Your task to perform on an android device: make emails show in primary in the gmail app Image 0: 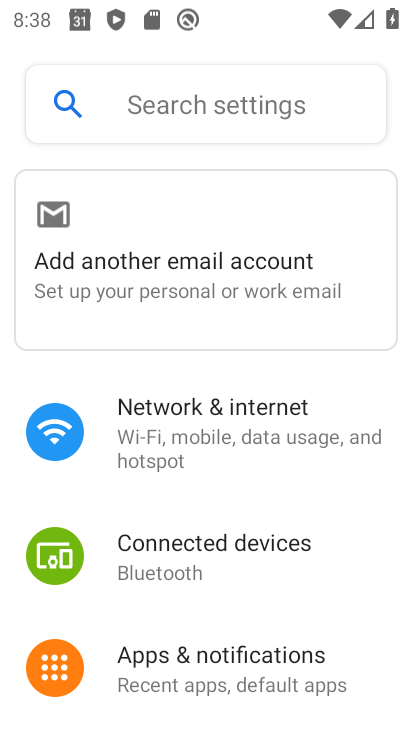
Step 0: press home button
Your task to perform on an android device: make emails show in primary in the gmail app Image 1: 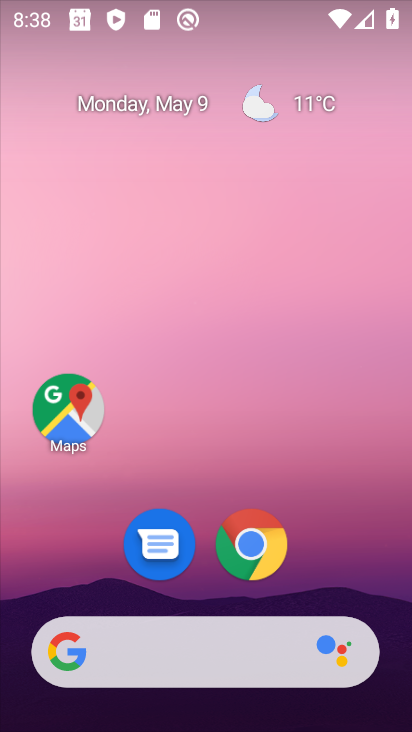
Step 1: drag from (385, 622) to (395, 89)
Your task to perform on an android device: make emails show in primary in the gmail app Image 2: 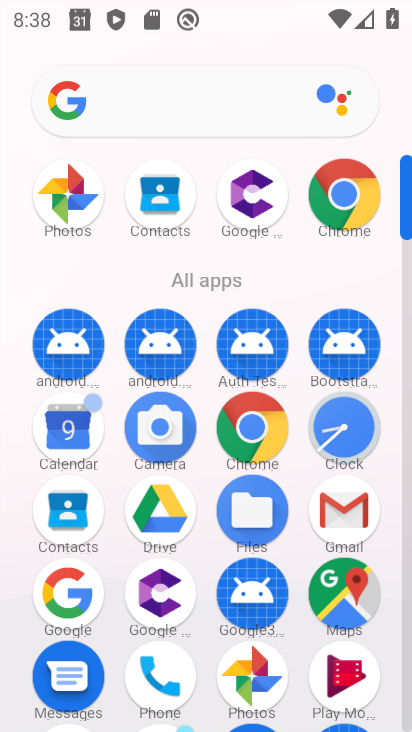
Step 2: click (328, 516)
Your task to perform on an android device: make emails show in primary in the gmail app Image 3: 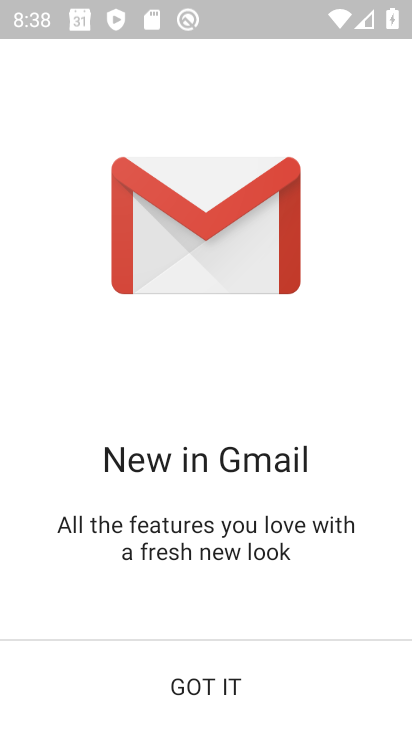
Step 3: click (199, 667)
Your task to perform on an android device: make emails show in primary in the gmail app Image 4: 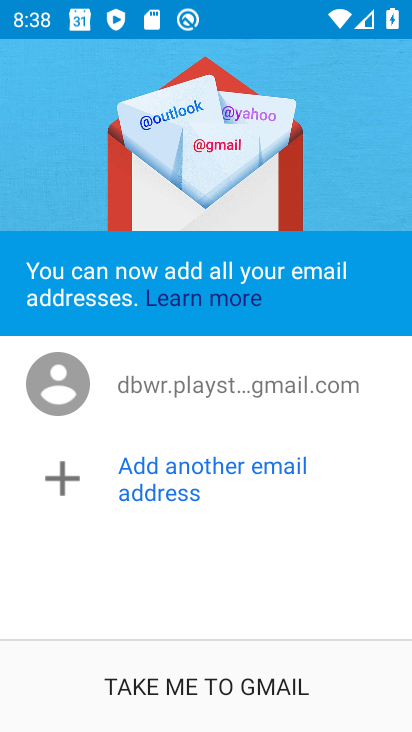
Step 4: click (237, 682)
Your task to perform on an android device: make emails show in primary in the gmail app Image 5: 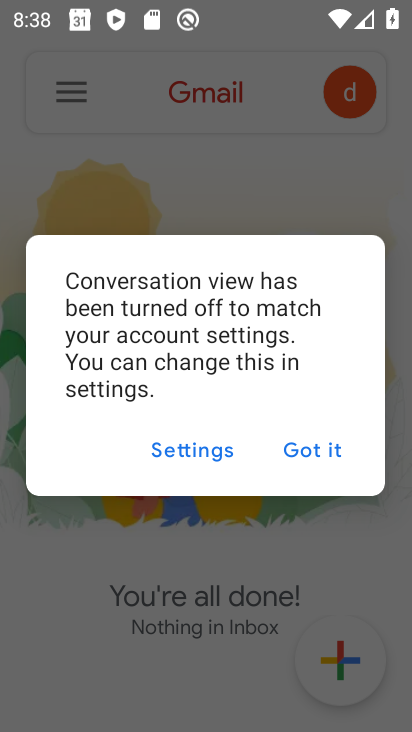
Step 5: click (317, 444)
Your task to perform on an android device: make emails show in primary in the gmail app Image 6: 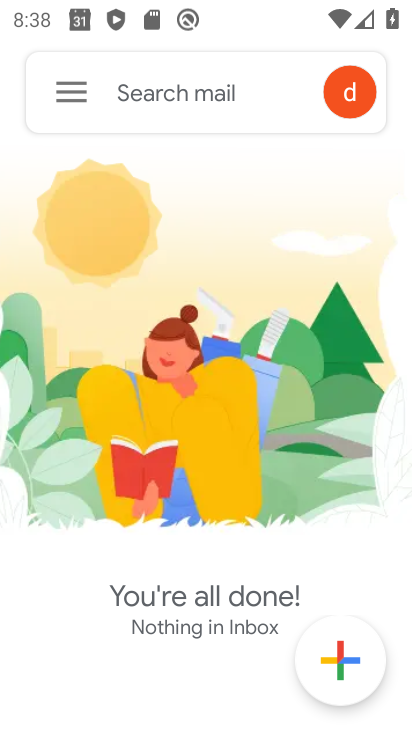
Step 6: click (62, 92)
Your task to perform on an android device: make emails show in primary in the gmail app Image 7: 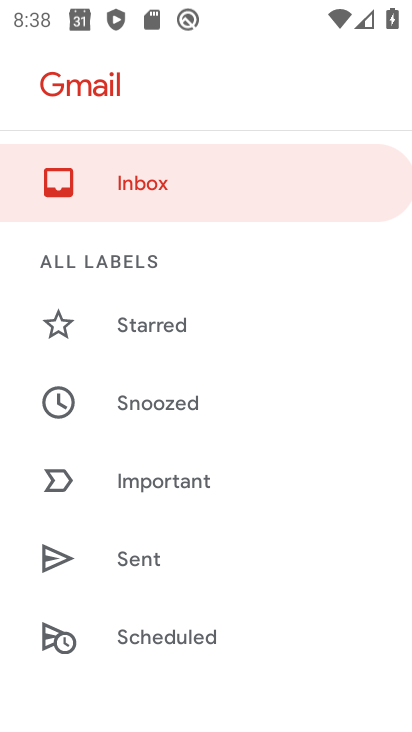
Step 7: drag from (307, 619) to (297, 391)
Your task to perform on an android device: make emails show in primary in the gmail app Image 8: 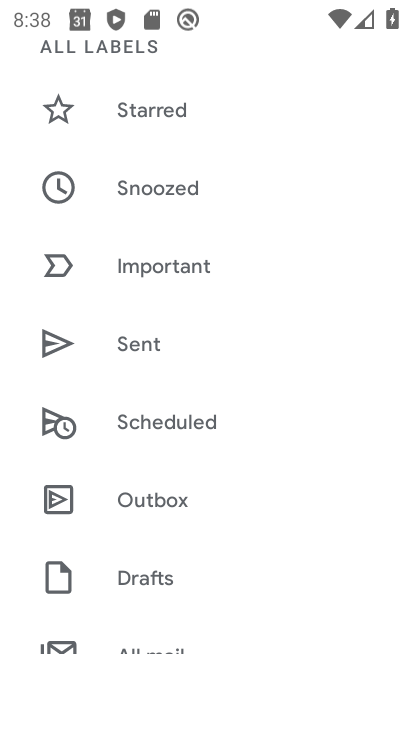
Step 8: drag from (301, 618) to (290, 391)
Your task to perform on an android device: make emails show in primary in the gmail app Image 9: 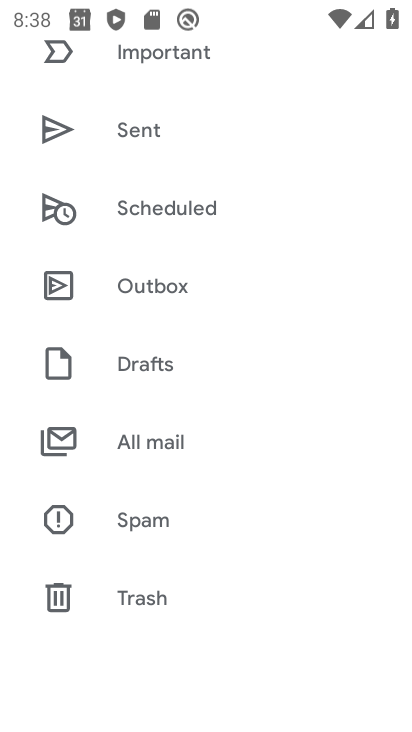
Step 9: drag from (288, 517) to (291, 351)
Your task to perform on an android device: make emails show in primary in the gmail app Image 10: 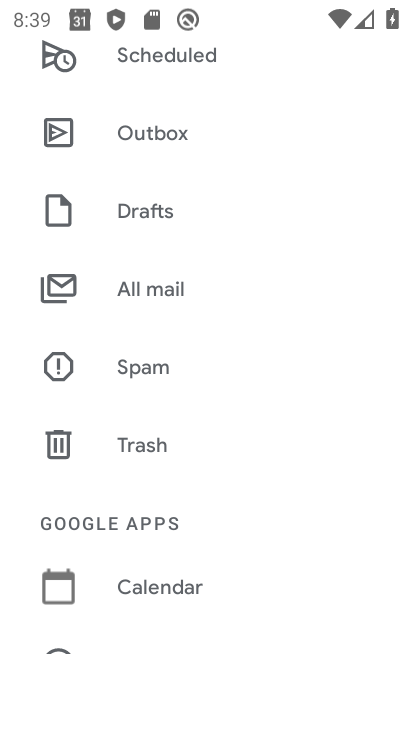
Step 10: drag from (274, 588) to (311, 218)
Your task to perform on an android device: make emails show in primary in the gmail app Image 11: 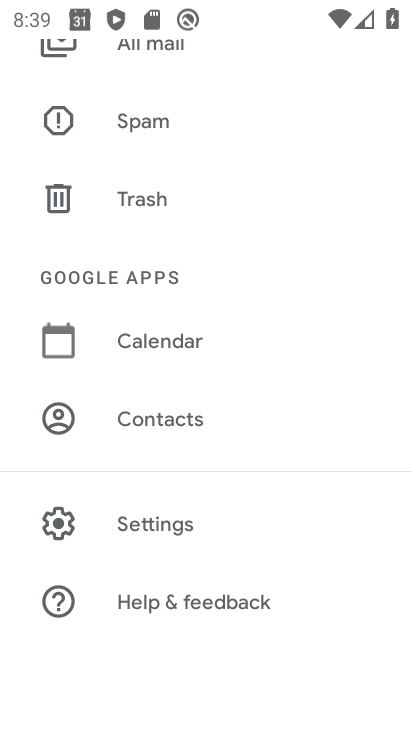
Step 11: click (153, 513)
Your task to perform on an android device: make emails show in primary in the gmail app Image 12: 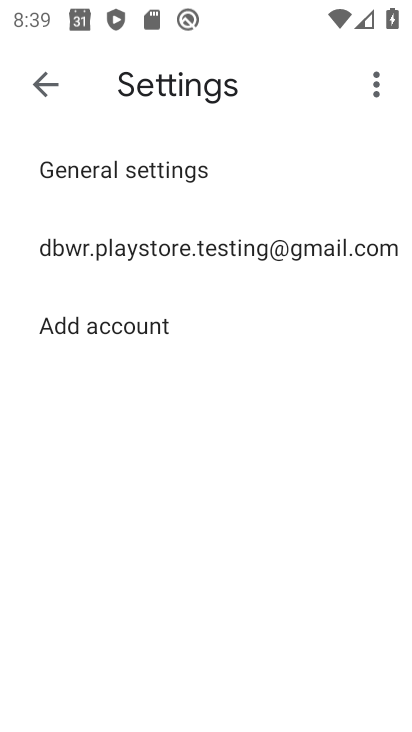
Step 12: click (109, 245)
Your task to perform on an android device: make emails show in primary in the gmail app Image 13: 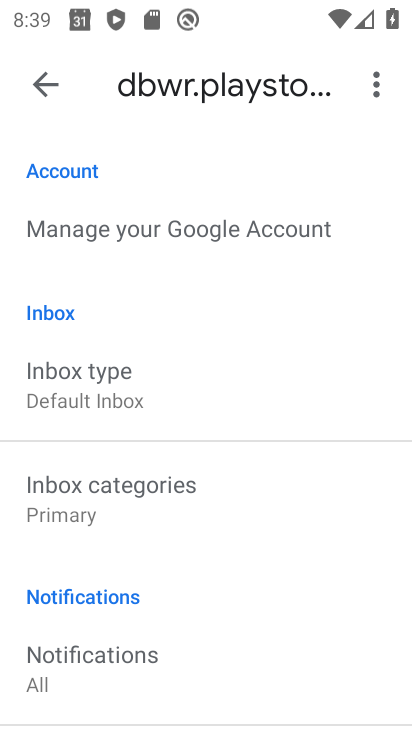
Step 13: click (71, 393)
Your task to perform on an android device: make emails show in primary in the gmail app Image 14: 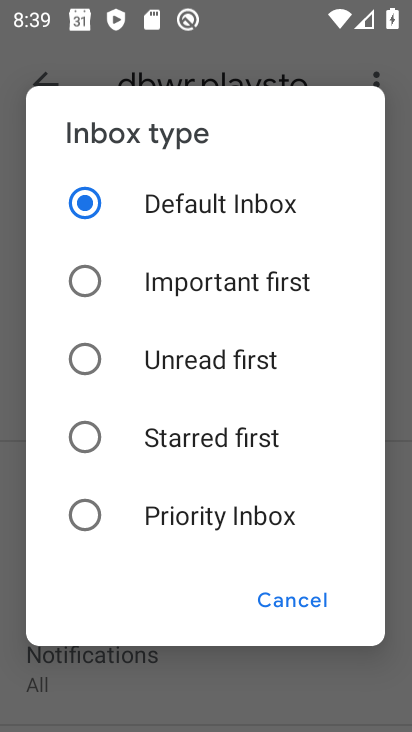
Step 14: press back button
Your task to perform on an android device: make emails show in primary in the gmail app Image 15: 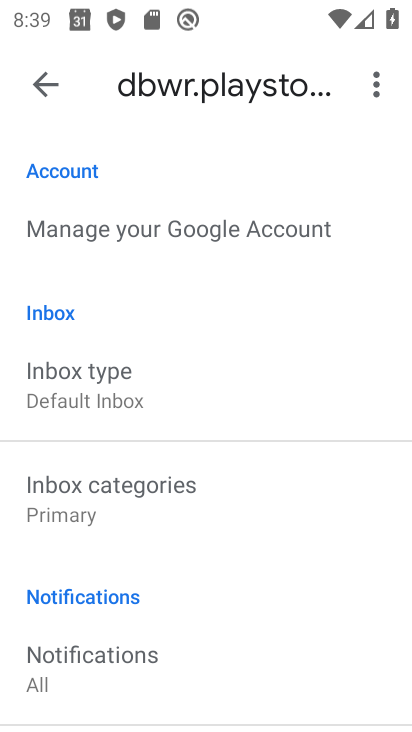
Step 15: click (96, 479)
Your task to perform on an android device: make emails show in primary in the gmail app Image 16: 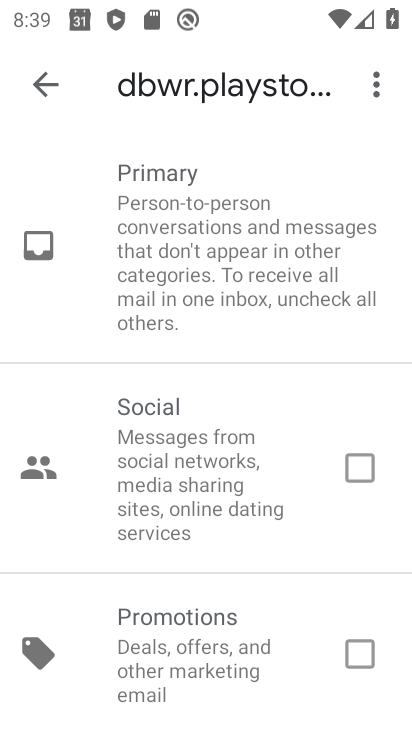
Step 16: task complete